Your task to perform on an android device: toggle airplane mode Image 0: 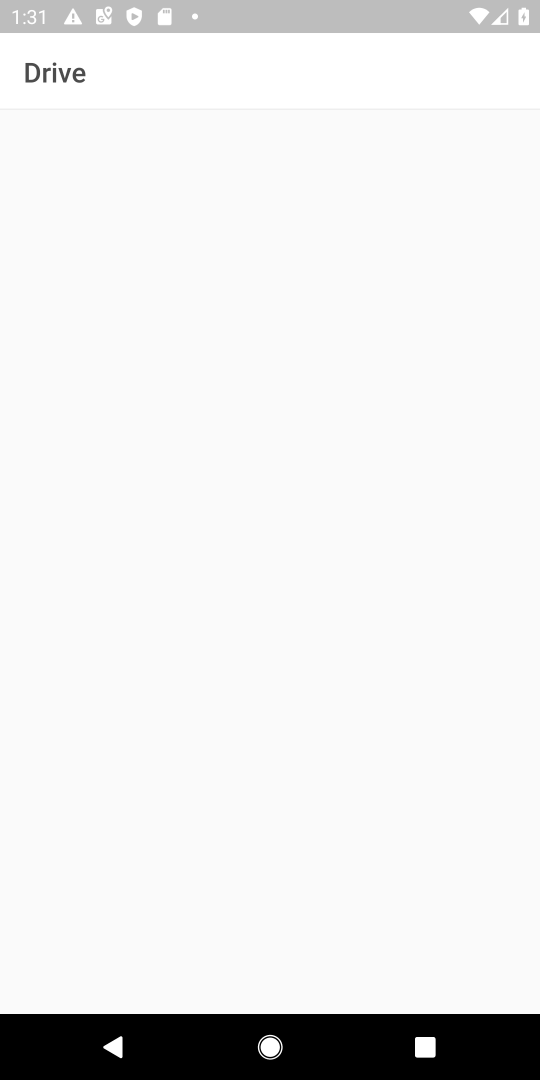
Step 0: press home button
Your task to perform on an android device: toggle airplane mode Image 1: 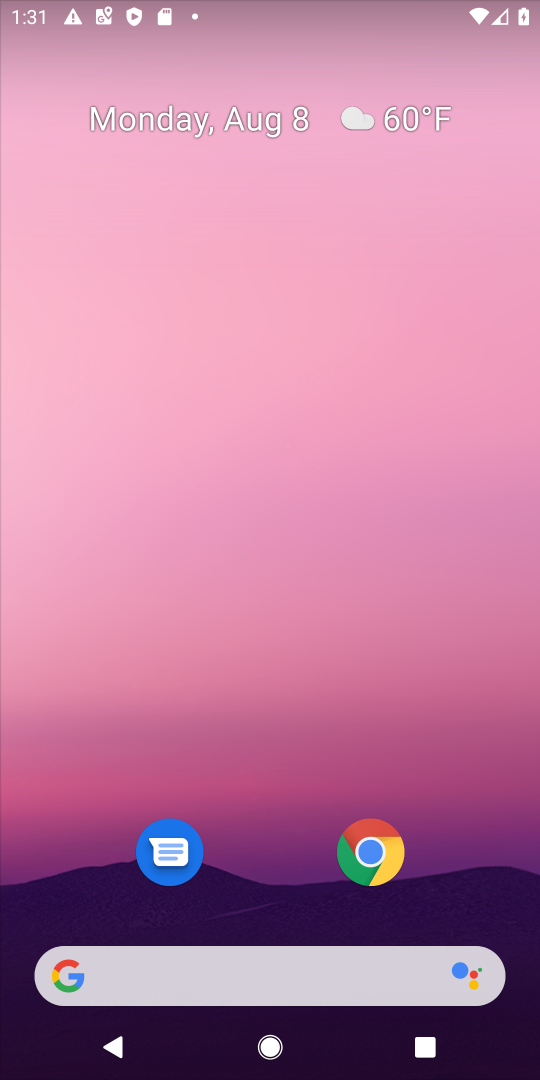
Step 1: drag from (248, 885) to (182, 246)
Your task to perform on an android device: toggle airplane mode Image 2: 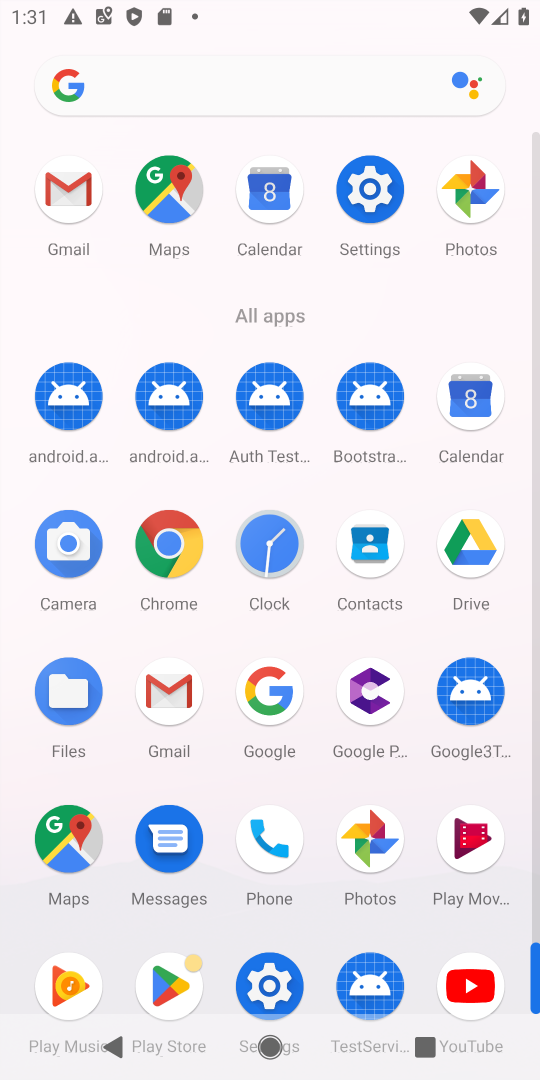
Step 2: click (371, 204)
Your task to perform on an android device: toggle airplane mode Image 3: 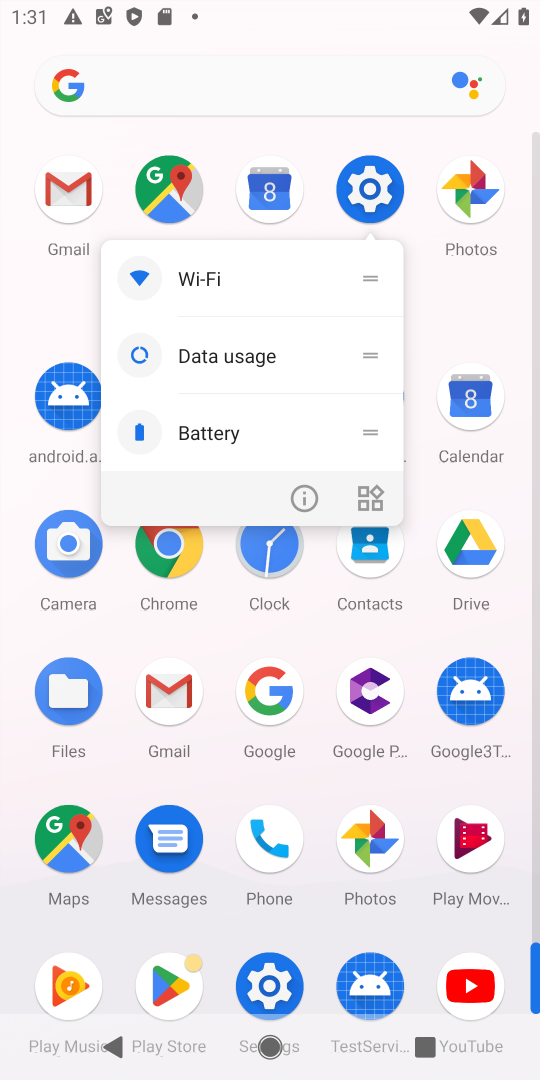
Step 3: click (371, 204)
Your task to perform on an android device: toggle airplane mode Image 4: 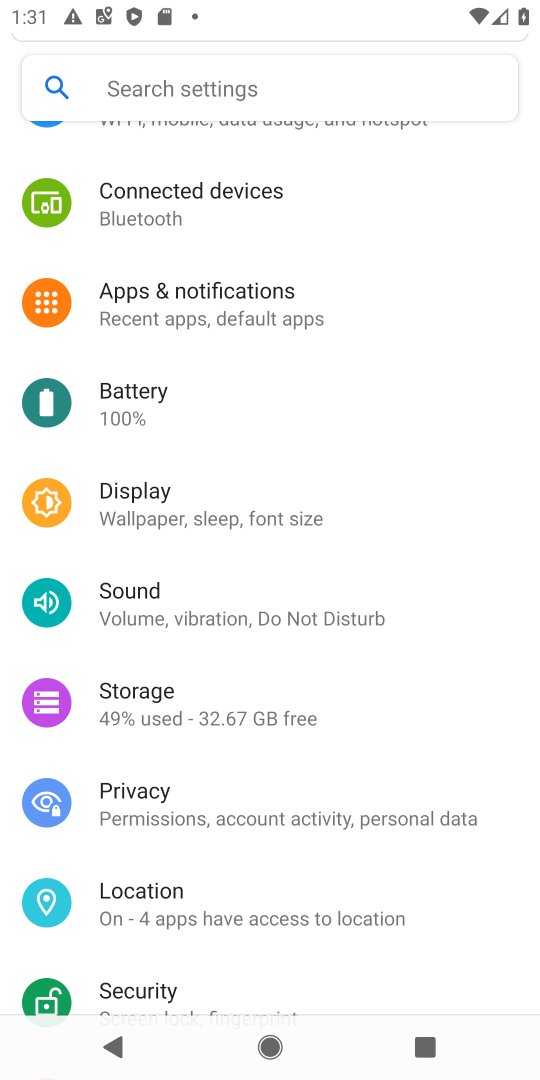
Step 4: drag from (343, 241) to (398, 560)
Your task to perform on an android device: toggle airplane mode Image 5: 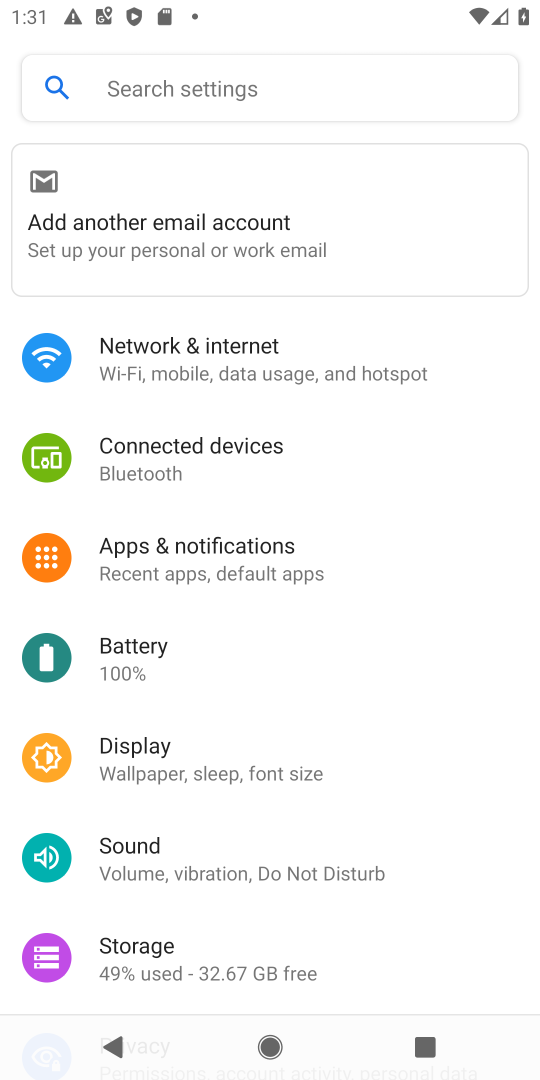
Step 5: click (294, 373)
Your task to perform on an android device: toggle airplane mode Image 6: 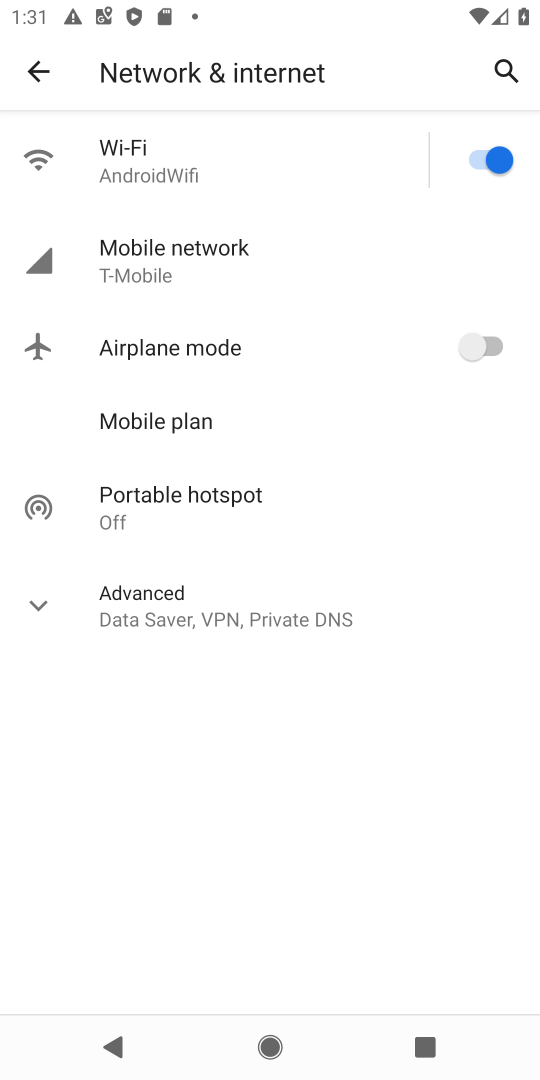
Step 6: click (459, 377)
Your task to perform on an android device: toggle airplane mode Image 7: 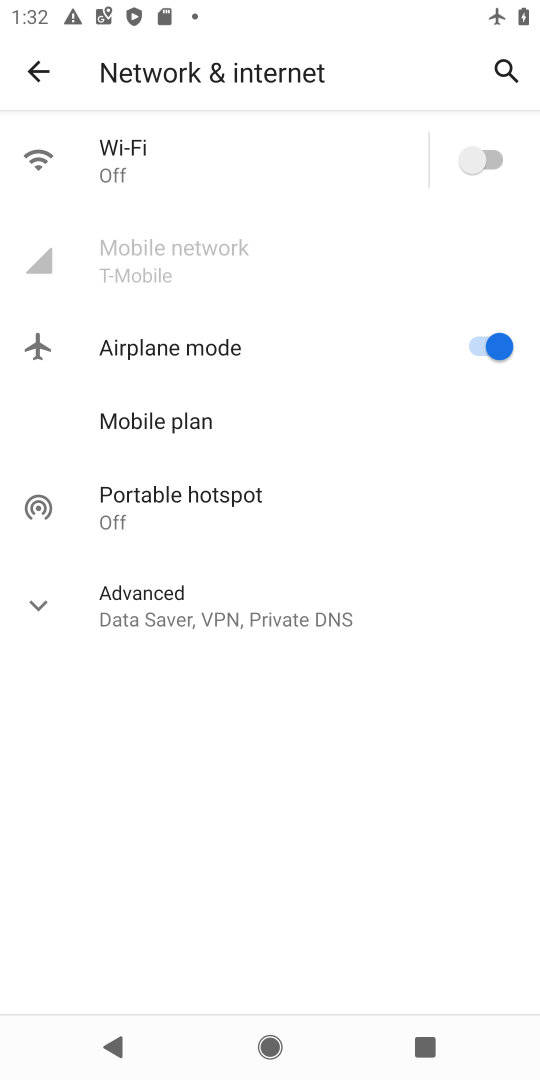
Step 7: task complete